Your task to perform on an android device: Go to sound settings Image 0: 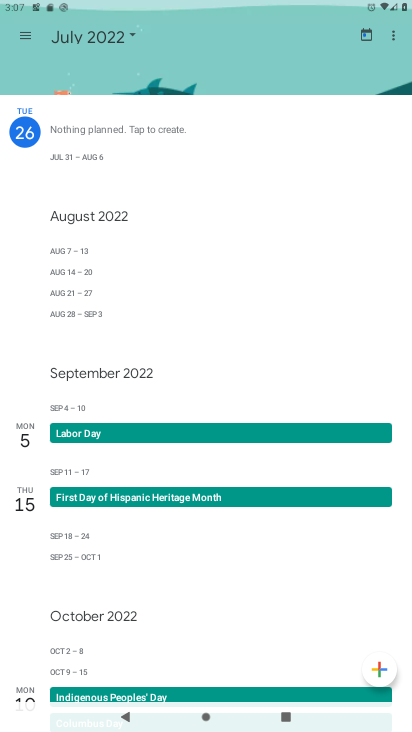
Step 0: press home button
Your task to perform on an android device: Go to sound settings Image 1: 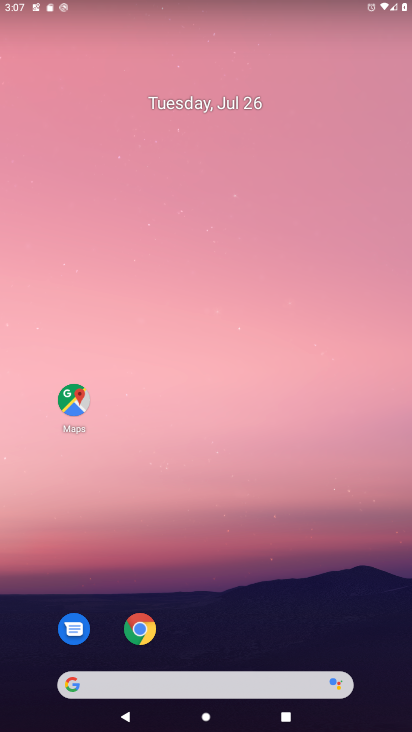
Step 1: drag from (209, 644) to (179, 143)
Your task to perform on an android device: Go to sound settings Image 2: 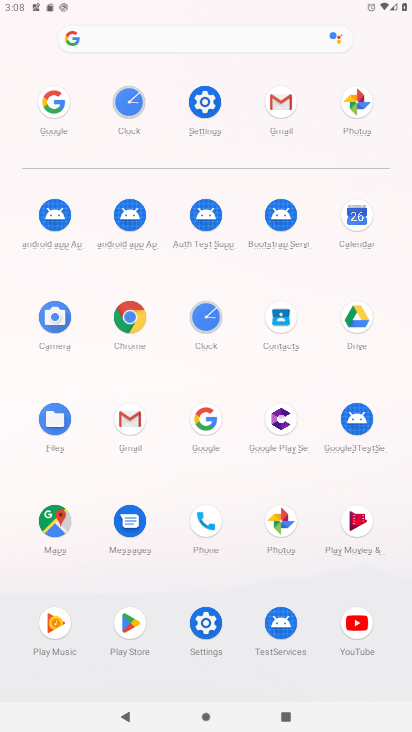
Step 2: click (198, 137)
Your task to perform on an android device: Go to sound settings Image 3: 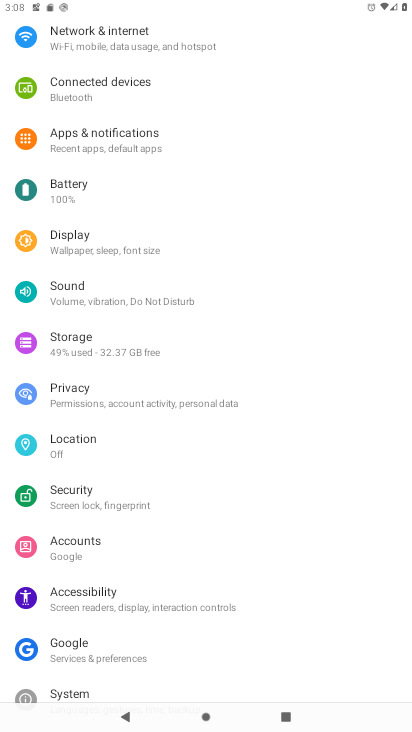
Step 3: click (128, 301)
Your task to perform on an android device: Go to sound settings Image 4: 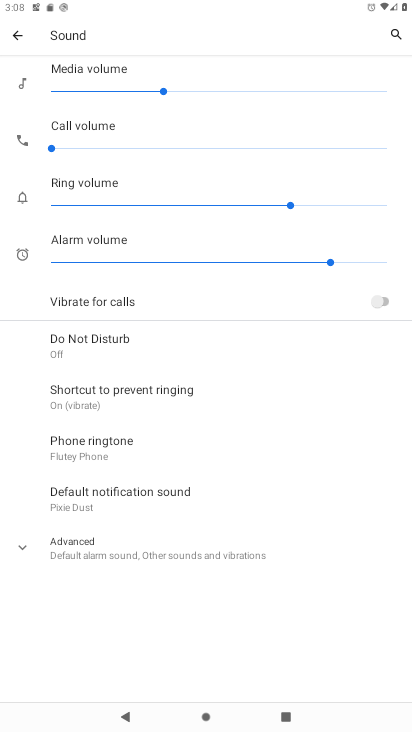
Step 4: task complete